Your task to perform on an android device: Go to Google maps Image 0: 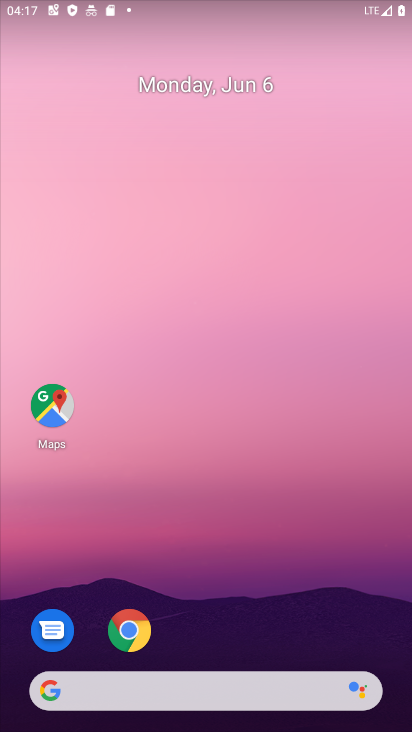
Step 0: click (65, 419)
Your task to perform on an android device: Go to Google maps Image 1: 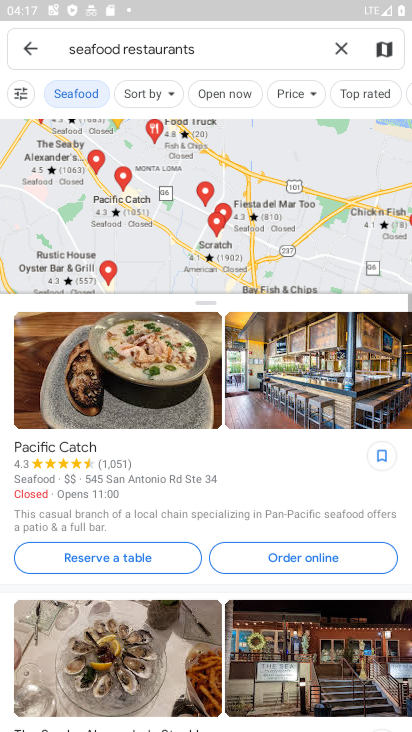
Step 1: task complete